Your task to perform on an android device: turn off priority inbox in the gmail app Image 0: 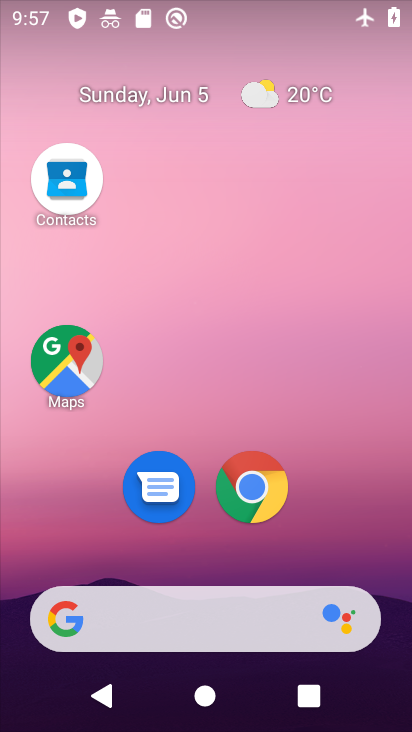
Step 0: drag from (267, 608) to (208, 198)
Your task to perform on an android device: turn off priority inbox in the gmail app Image 1: 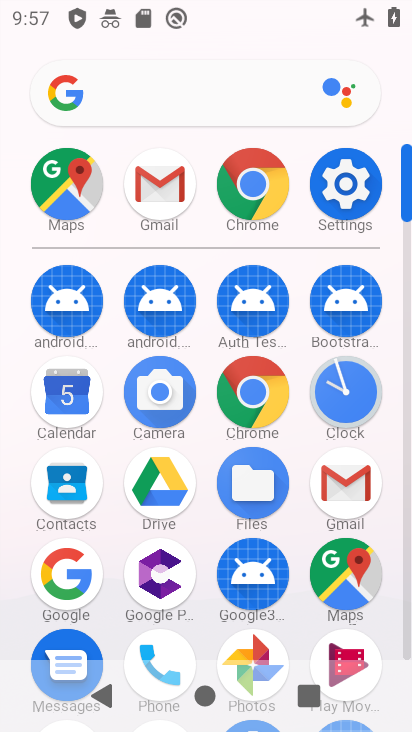
Step 1: click (354, 486)
Your task to perform on an android device: turn off priority inbox in the gmail app Image 2: 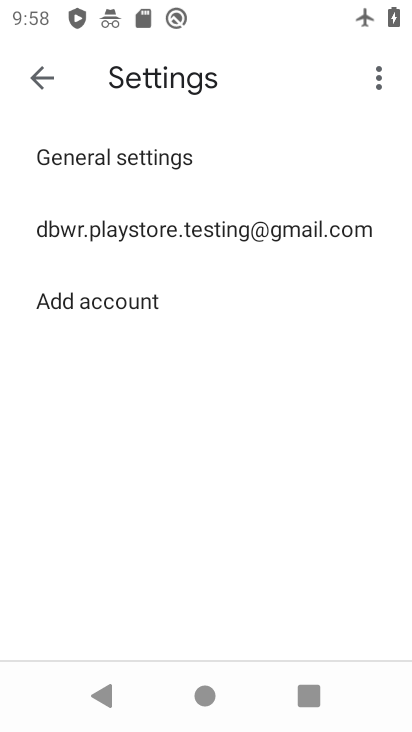
Step 2: click (180, 240)
Your task to perform on an android device: turn off priority inbox in the gmail app Image 3: 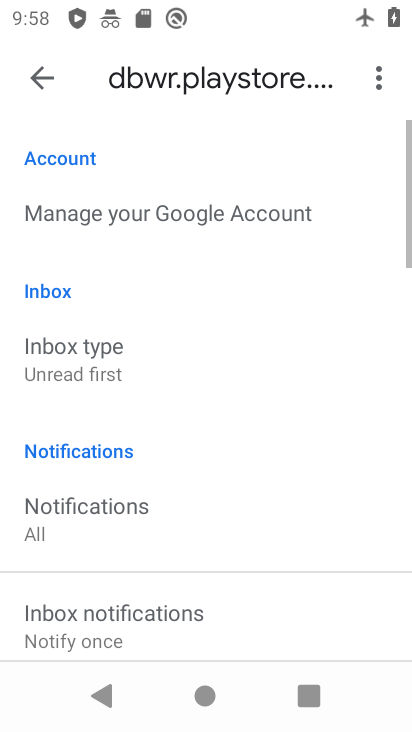
Step 3: click (139, 357)
Your task to perform on an android device: turn off priority inbox in the gmail app Image 4: 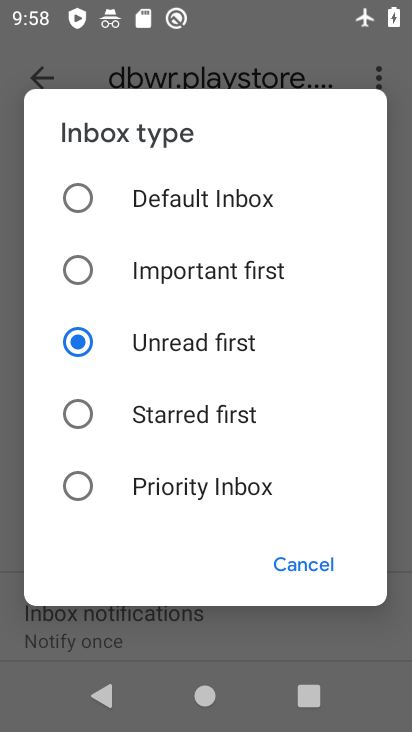
Step 4: task complete